Your task to perform on an android device: Toggle the flashlight Image 0: 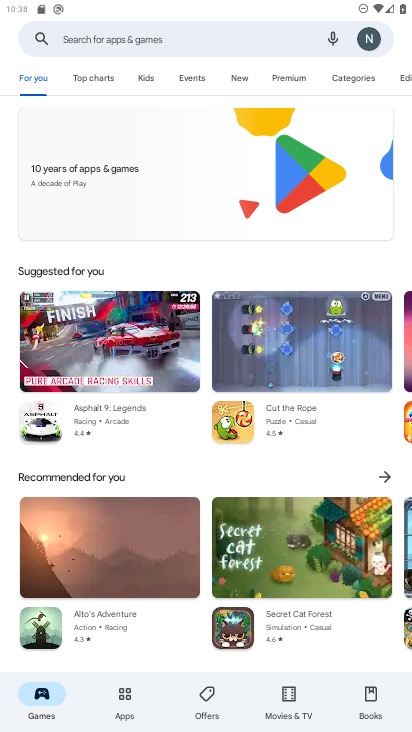
Step 0: drag from (303, 92) to (334, 434)
Your task to perform on an android device: Toggle the flashlight Image 1: 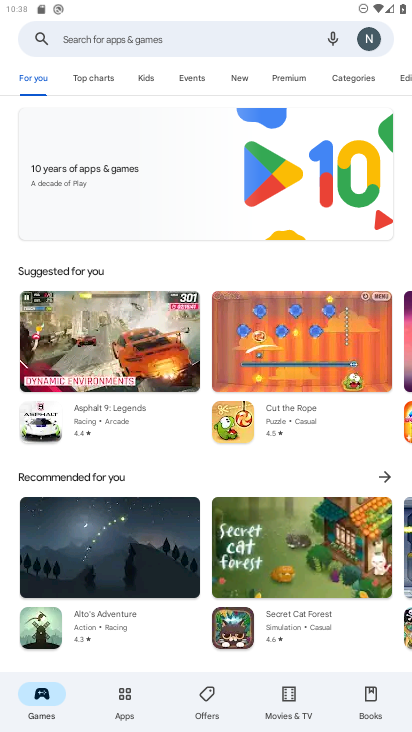
Step 1: task complete